Your task to perform on an android device: Turn off the flashlight Image 0: 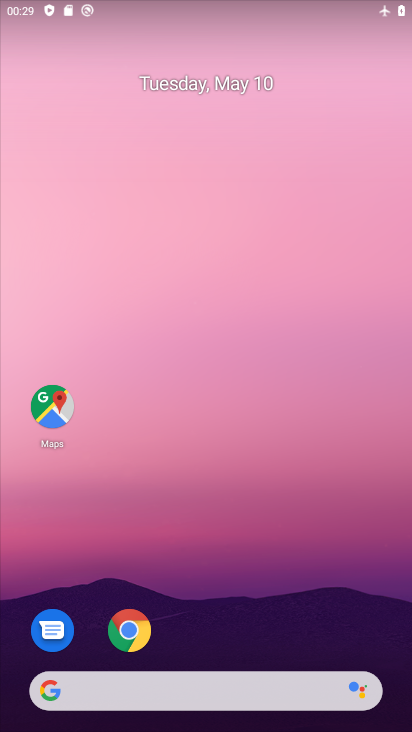
Step 0: drag from (207, 722) to (212, 418)
Your task to perform on an android device: Turn off the flashlight Image 1: 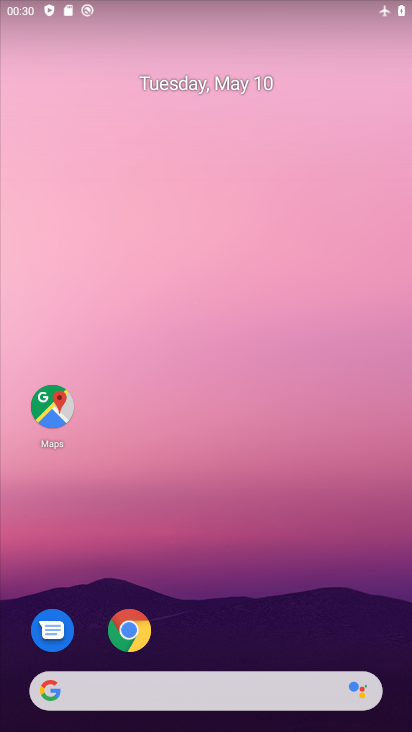
Step 1: drag from (229, 730) to (221, 73)
Your task to perform on an android device: Turn off the flashlight Image 2: 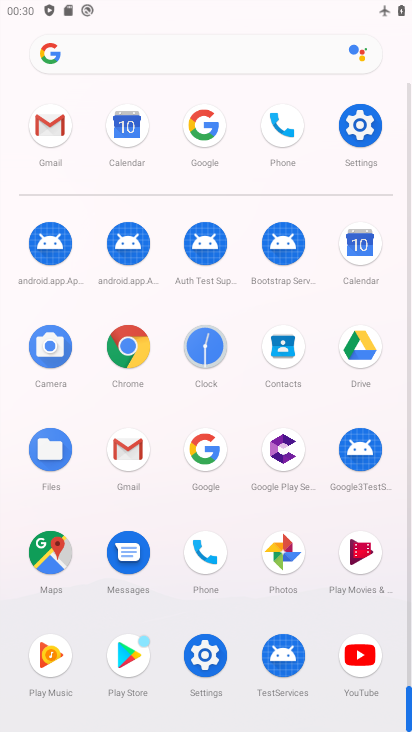
Step 2: click (363, 120)
Your task to perform on an android device: Turn off the flashlight Image 3: 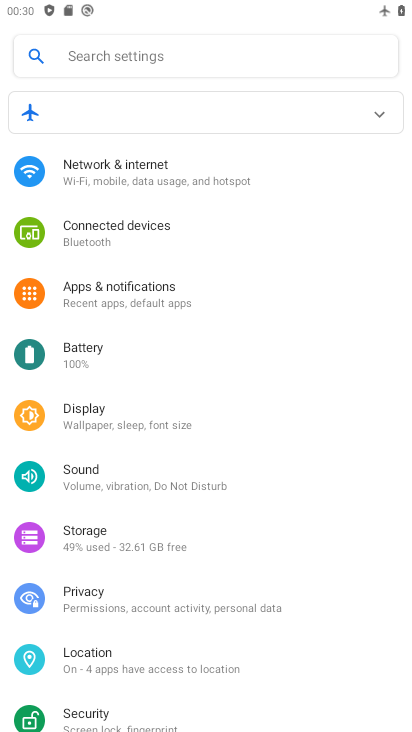
Step 3: task complete